Your task to perform on an android device: turn off smart reply in the gmail app Image 0: 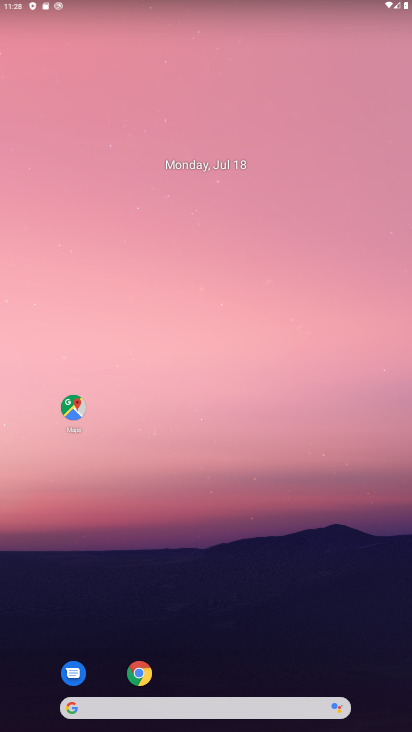
Step 0: drag from (240, 660) to (233, 69)
Your task to perform on an android device: turn off smart reply in the gmail app Image 1: 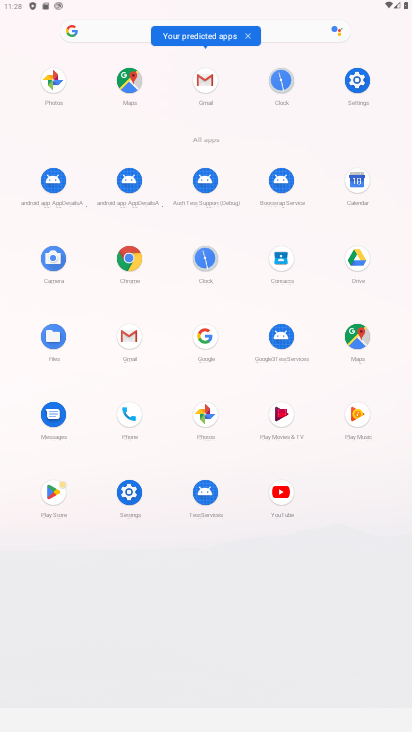
Step 1: click (127, 336)
Your task to perform on an android device: turn off smart reply in the gmail app Image 2: 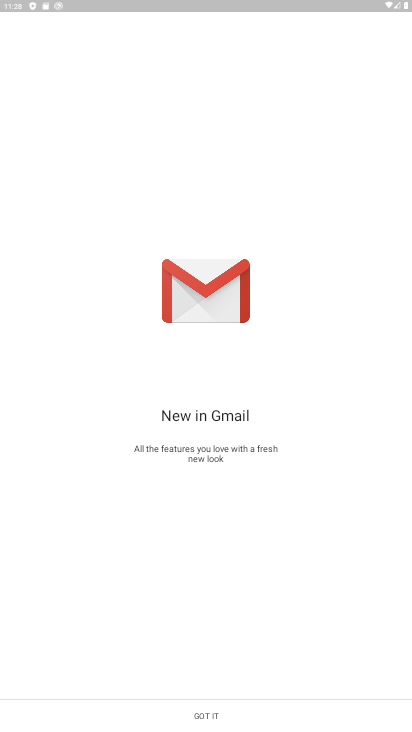
Step 2: click (244, 716)
Your task to perform on an android device: turn off smart reply in the gmail app Image 3: 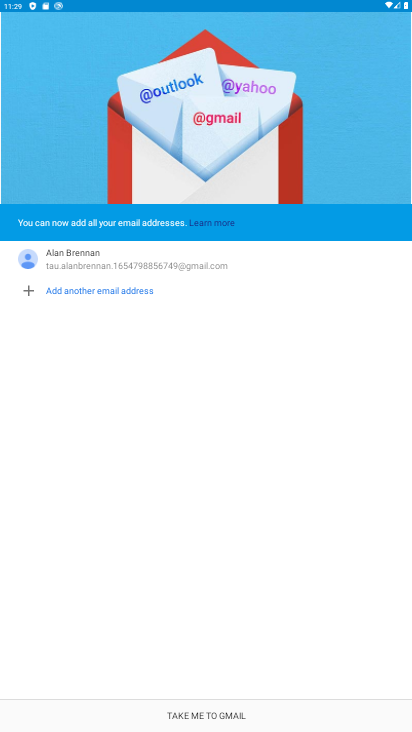
Step 3: click (244, 716)
Your task to perform on an android device: turn off smart reply in the gmail app Image 4: 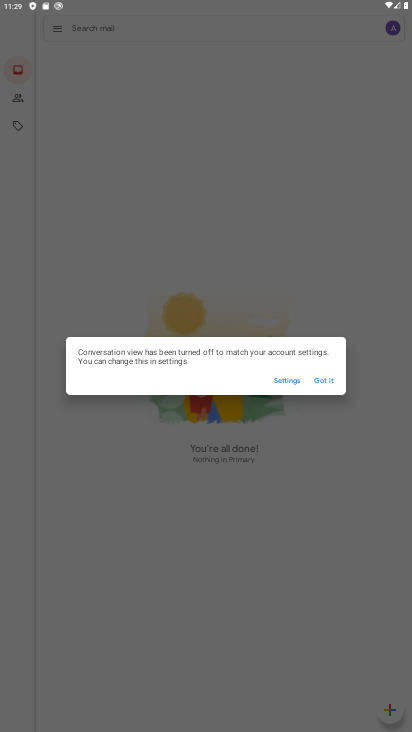
Step 4: click (320, 381)
Your task to perform on an android device: turn off smart reply in the gmail app Image 5: 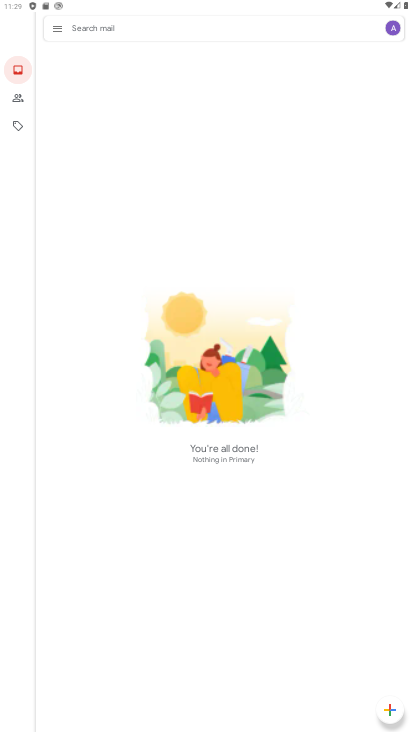
Step 5: click (50, 23)
Your task to perform on an android device: turn off smart reply in the gmail app Image 6: 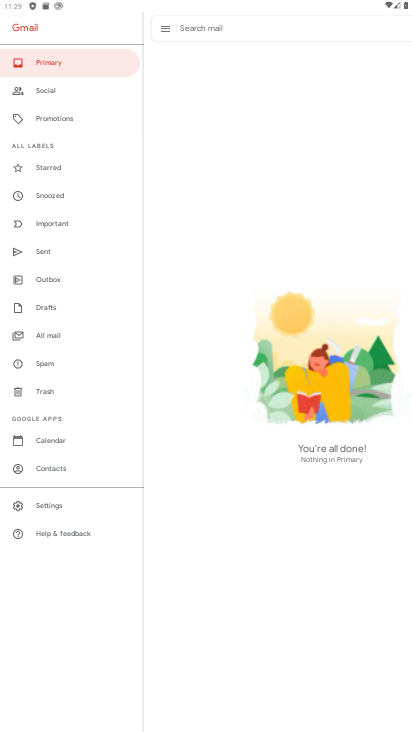
Step 6: click (64, 499)
Your task to perform on an android device: turn off smart reply in the gmail app Image 7: 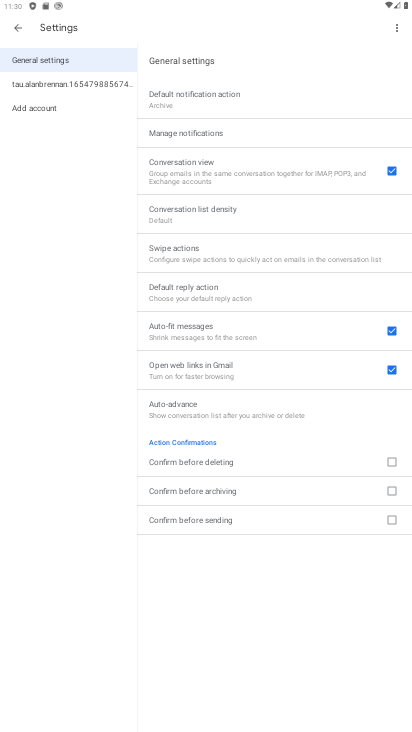
Step 7: click (107, 83)
Your task to perform on an android device: turn off smart reply in the gmail app Image 8: 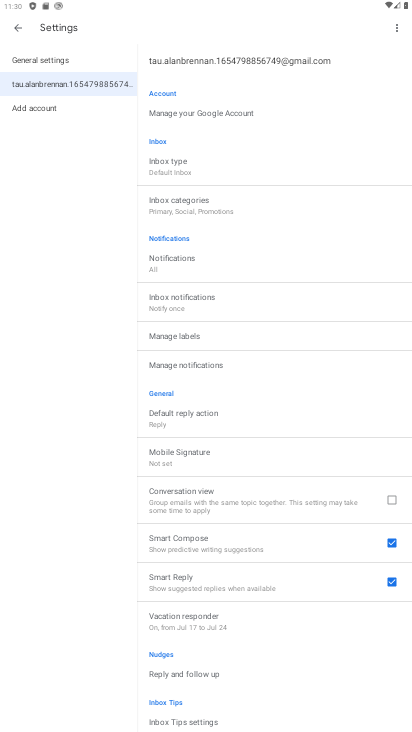
Step 8: click (388, 580)
Your task to perform on an android device: turn off smart reply in the gmail app Image 9: 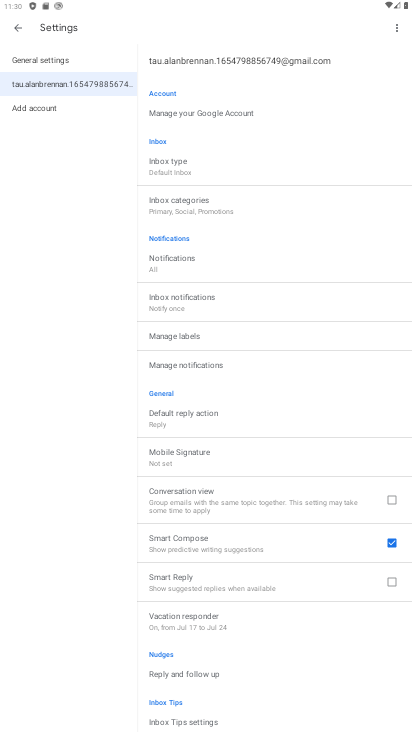
Step 9: task complete